Your task to perform on an android device: Search for pizza restaurants on Maps Image 0: 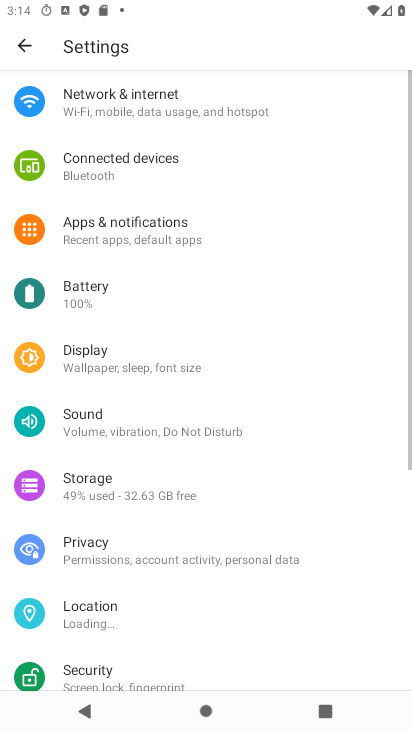
Step 0: press home button
Your task to perform on an android device: Search for pizza restaurants on Maps Image 1: 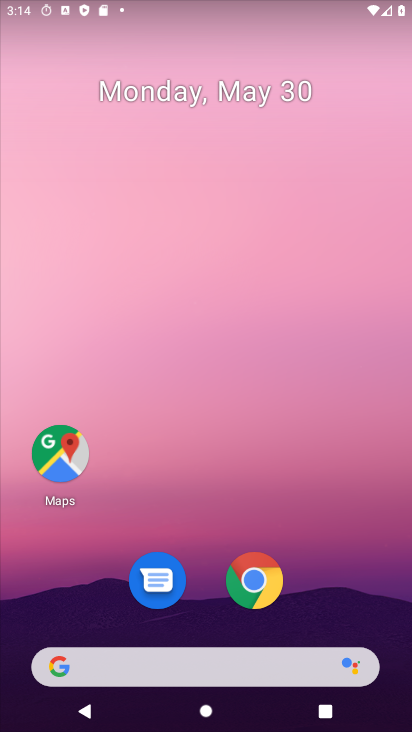
Step 1: drag from (197, 608) to (213, 52)
Your task to perform on an android device: Search for pizza restaurants on Maps Image 2: 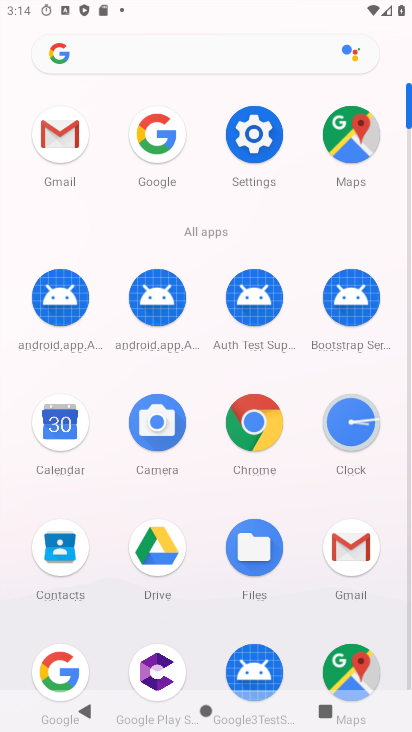
Step 2: click (358, 133)
Your task to perform on an android device: Search for pizza restaurants on Maps Image 3: 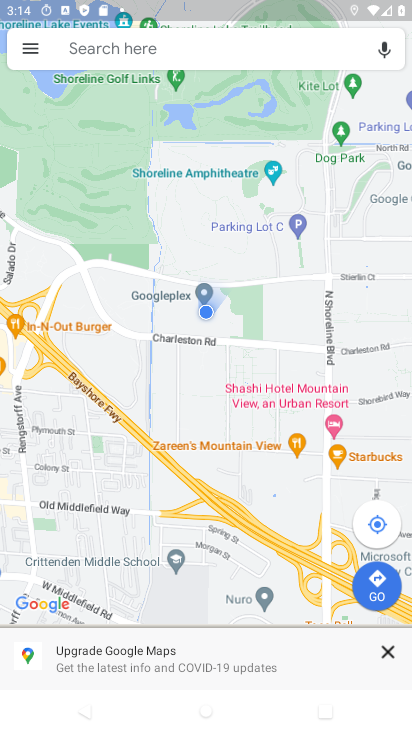
Step 3: click (179, 63)
Your task to perform on an android device: Search for pizza restaurants on Maps Image 4: 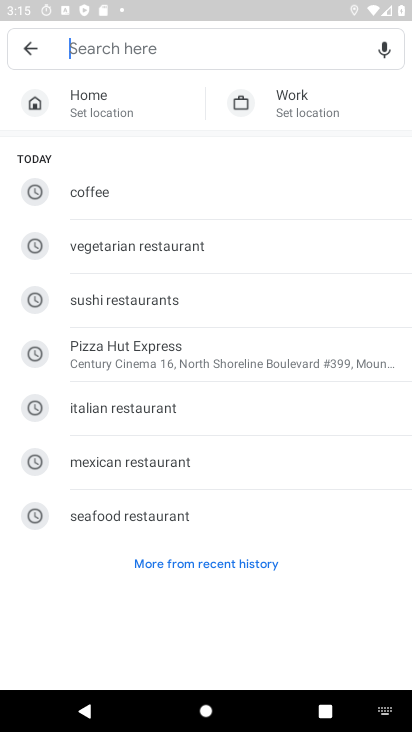
Step 4: type "pizza restaurent"
Your task to perform on an android device: Search for pizza restaurants on Maps Image 5: 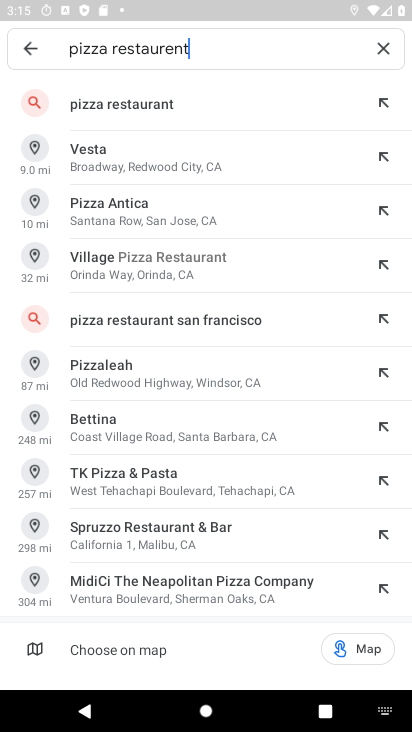
Step 5: click (164, 99)
Your task to perform on an android device: Search for pizza restaurants on Maps Image 6: 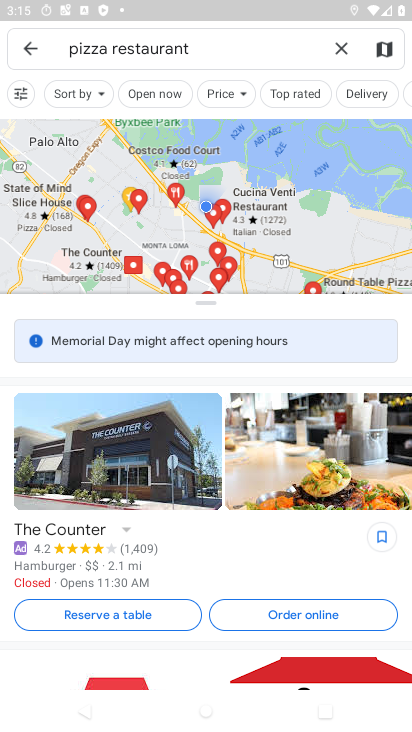
Step 6: task complete